Your task to perform on an android device: Search for sushi restaurants on Maps Image 0: 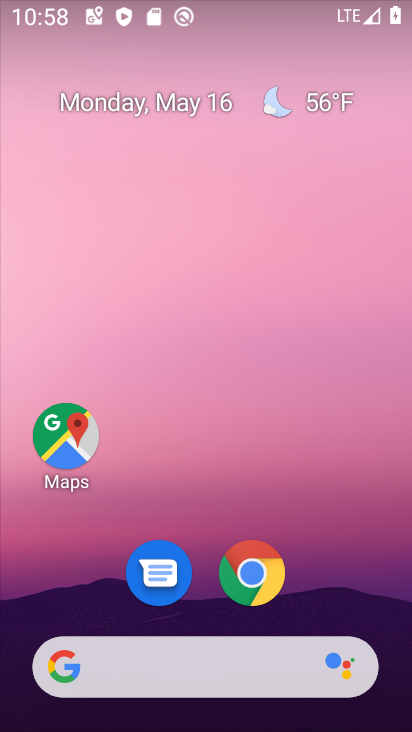
Step 0: click (82, 426)
Your task to perform on an android device: Search for sushi restaurants on Maps Image 1: 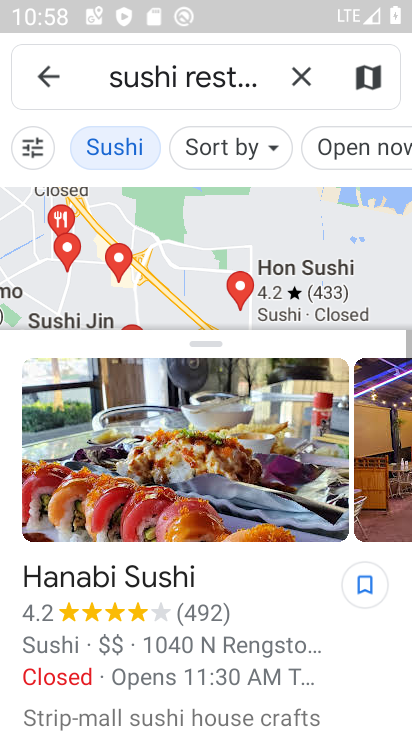
Step 1: task complete